Your task to perform on an android device: turn off translation in the chrome app Image 0: 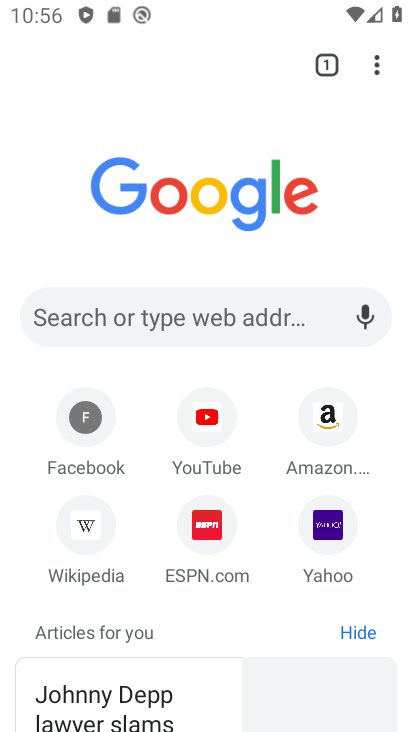
Step 0: press back button
Your task to perform on an android device: turn off translation in the chrome app Image 1: 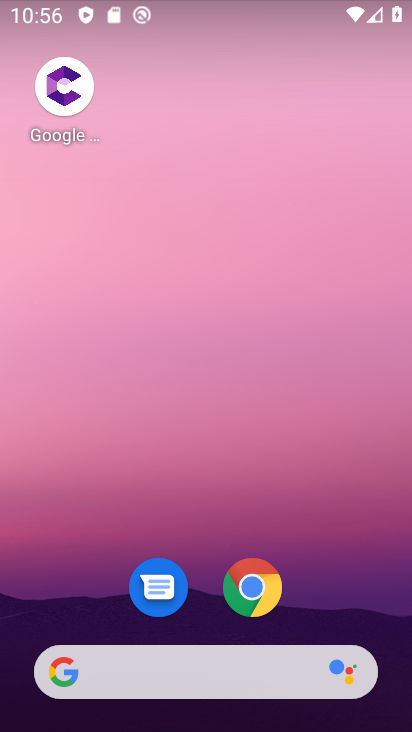
Step 1: drag from (227, 675) to (9, 36)
Your task to perform on an android device: turn off translation in the chrome app Image 2: 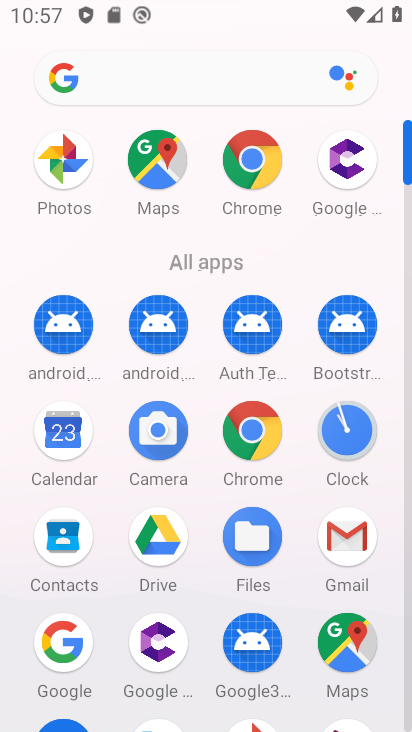
Step 2: click (248, 157)
Your task to perform on an android device: turn off translation in the chrome app Image 3: 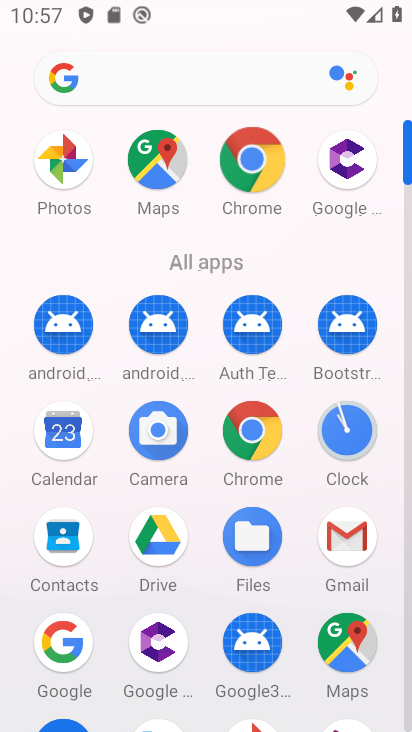
Step 3: click (248, 157)
Your task to perform on an android device: turn off translation in the chrome app Image 4: 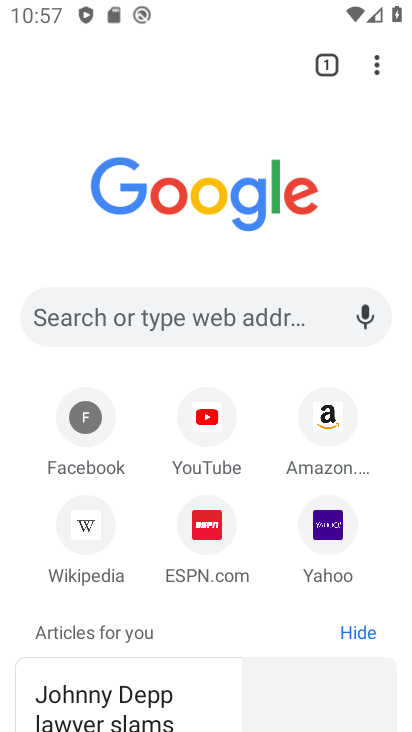
Step 4: drag from (370, 66) to (146, 550)
Your task to perform on an android device: turn off translation in the chrome app Image 5: 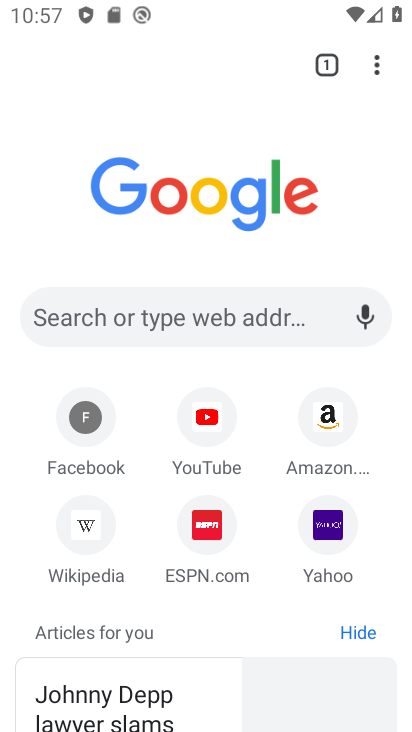
Step 5: click (148, 546)
Your task to perform on an android device: turn off translation in the chrome app Image 6: 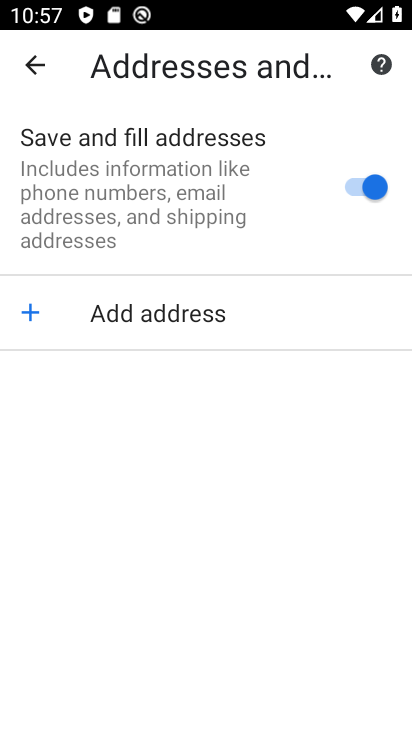
Step 6: click (35, 59)
Your task to perform on an android device: turn off translation in the chrome app Image 7: 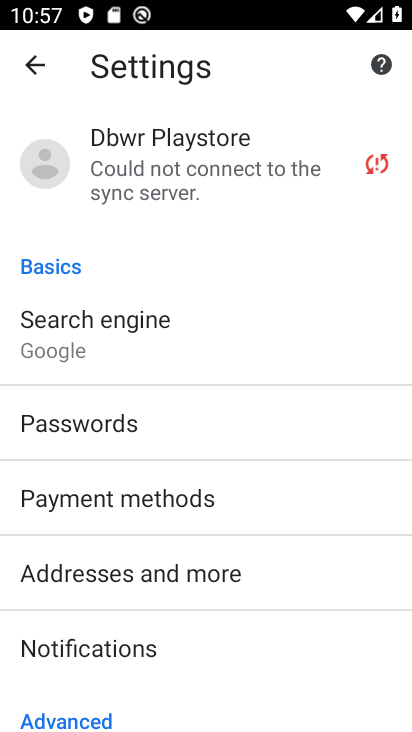
Step 7: drag from (170, 619) to (60, 29)
Your task to perform on an android device: turn off translation in the chrome app Image 8: 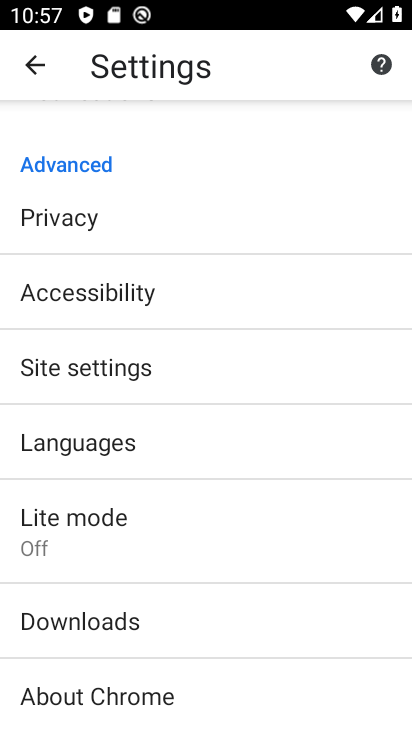
Step 8: click (62, 441)
Your task to perform on an android device: turn off translation in the chrome app Image 9: 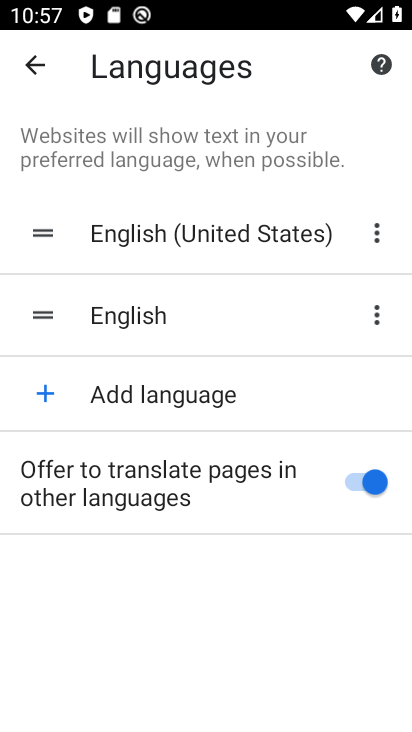
Step 9: click (372, 480)
Your task to perform on an android device: turn off translation in the chrome app Image 10: 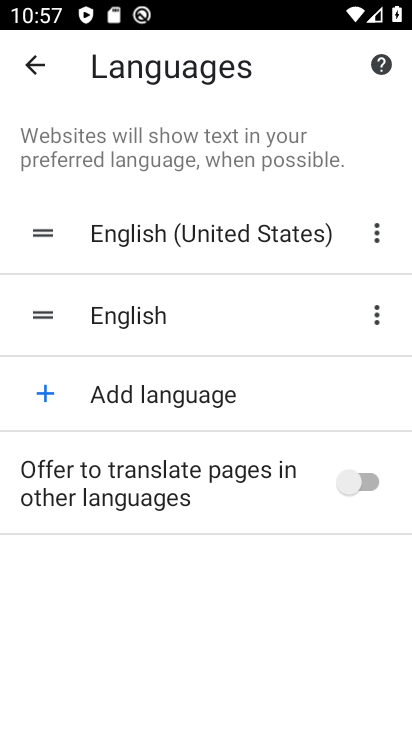
Step 10: task complete